Your task to perform on an android device: turn on wifi Image 0: 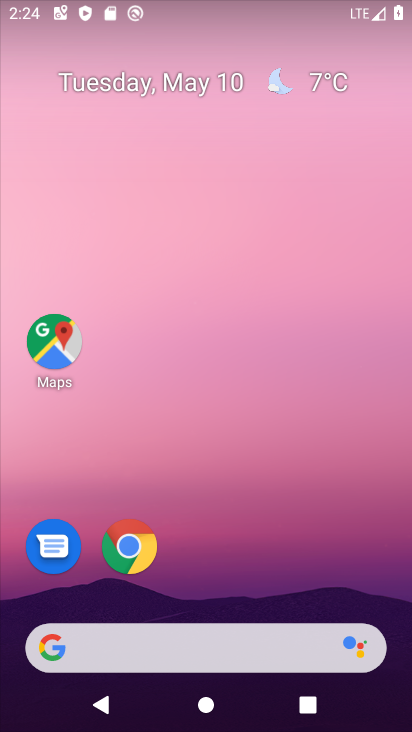
Step 0: drag from (266, 520) to (300, 93)
Your task to perform on an android device: turn on wifi Image 1: 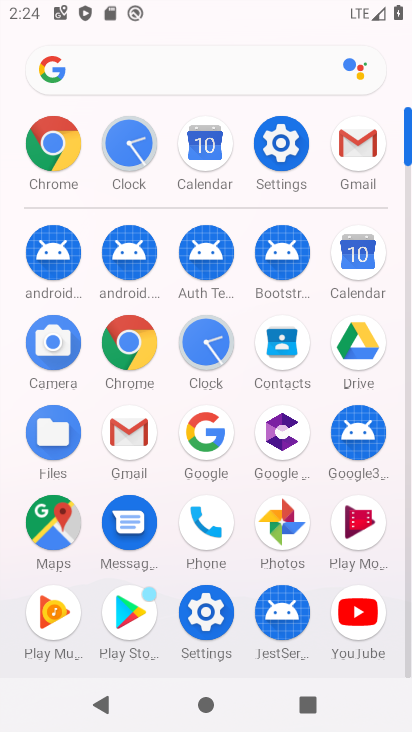
Step 1: click (283, 130)
Your task to perform on an android device: turn on wifi Image 2: 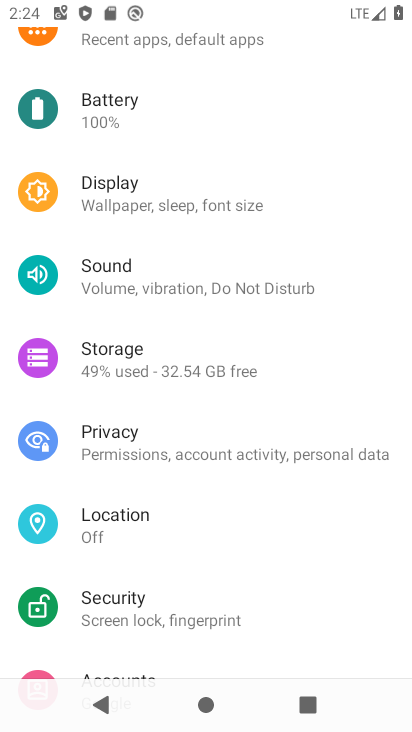
Step 2: drag from (194, 225) to (149, 488)
Your task to perform on an android device: turn on wifi Image 3: 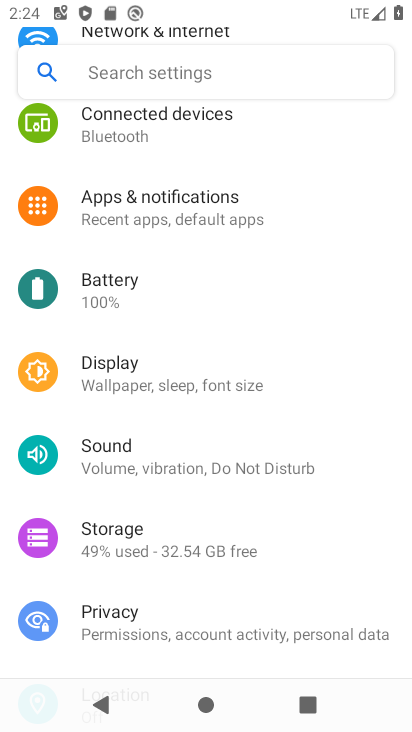
Step 3: drag from (119, 201) to (156, 490)
Your task to perform on an android device: turn on wifi Image 4: 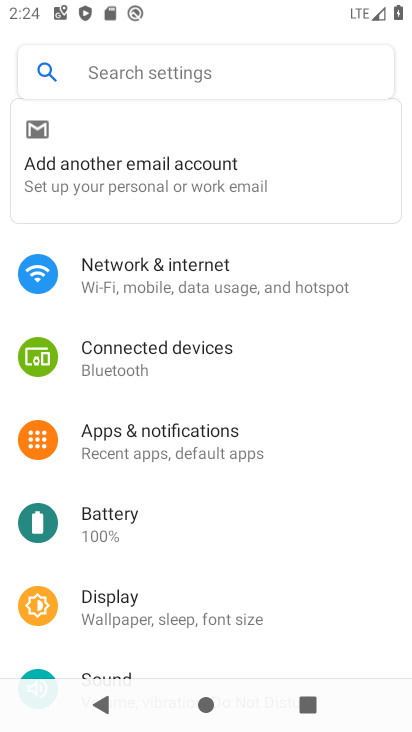
Step 4: click (146, 276)
Your task to perform on an android device: turn on wifi Image 5: 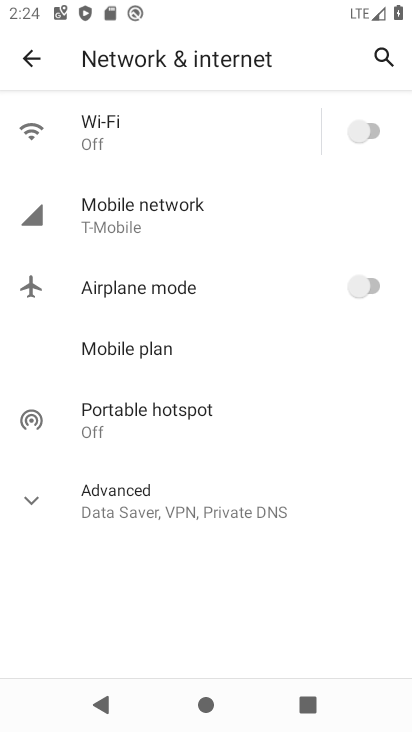
Step 5: click (357, 131)
Your task to perform on an android device: turn on wifi Image 6: 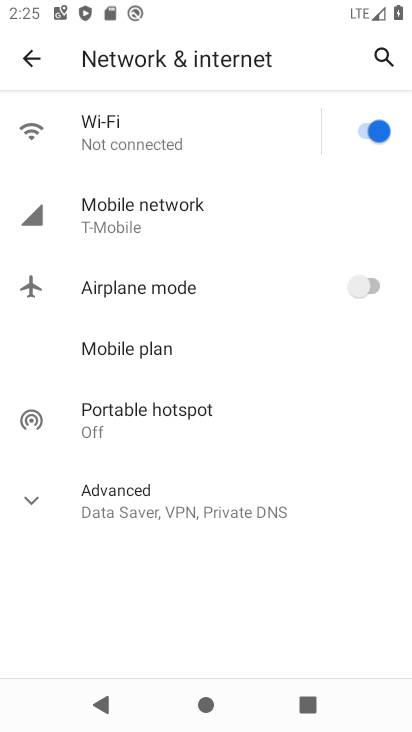
Step 6: task complete